Your task to perform on an android device: Search for "usb-a" on costco.com, select the first entry, add it to the cart, then select checkout. Image 0: 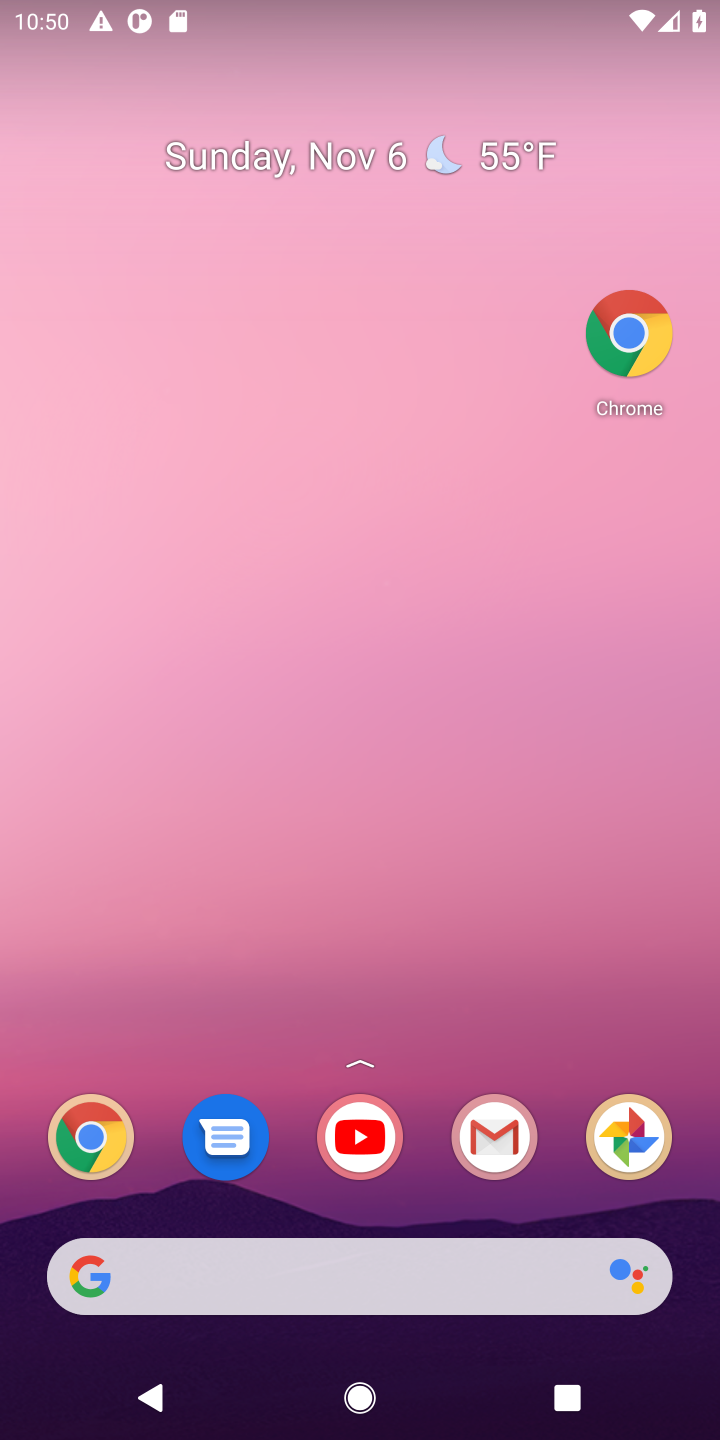
Step 0: drag from (427, 1127) to (346, 74)
Your task to perform on an android device: Search for "usb-a" on costco.com, select the first entry, add it to the cart, then select checkout. Image 1: 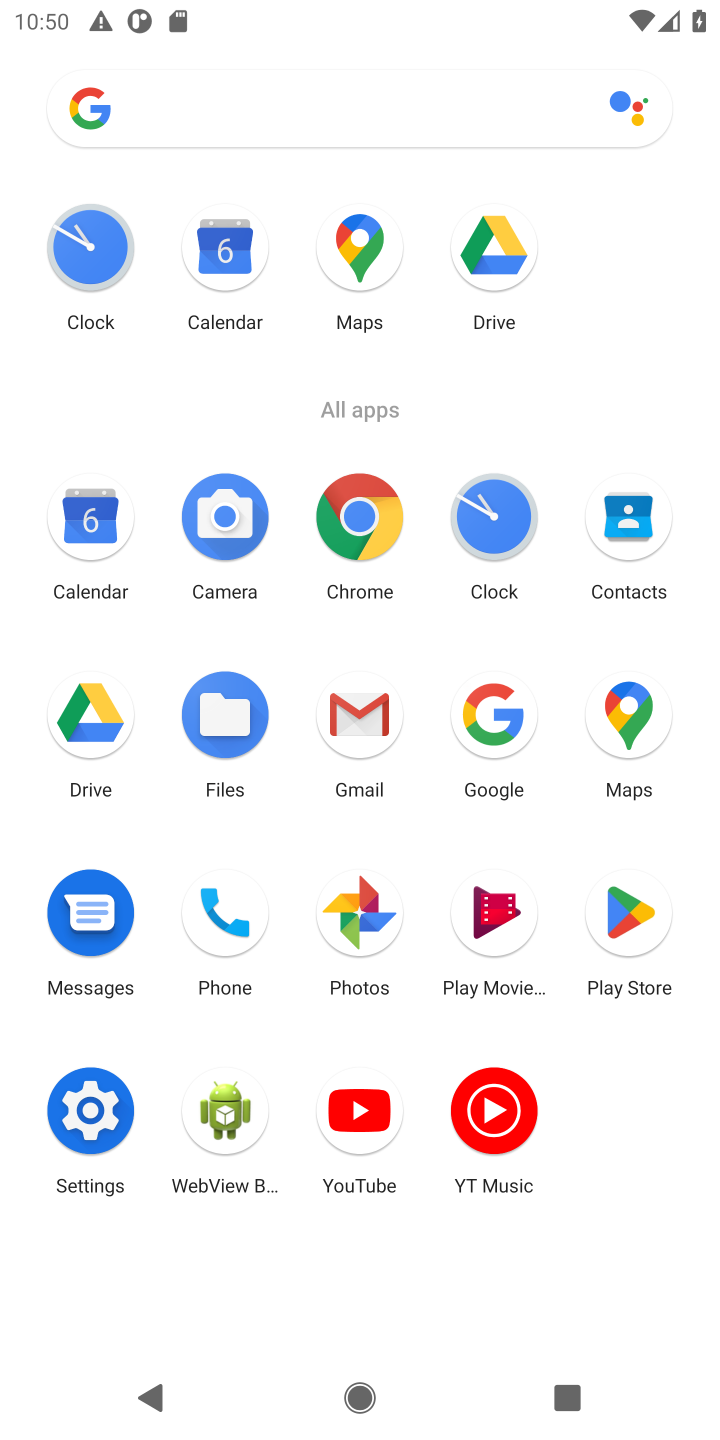
Step 1: click (360, 522)
Your task to perform on an android device: Search for "usb-a" on costco.com, select the first entry, add it to the cart, then select checkout. Image 2: 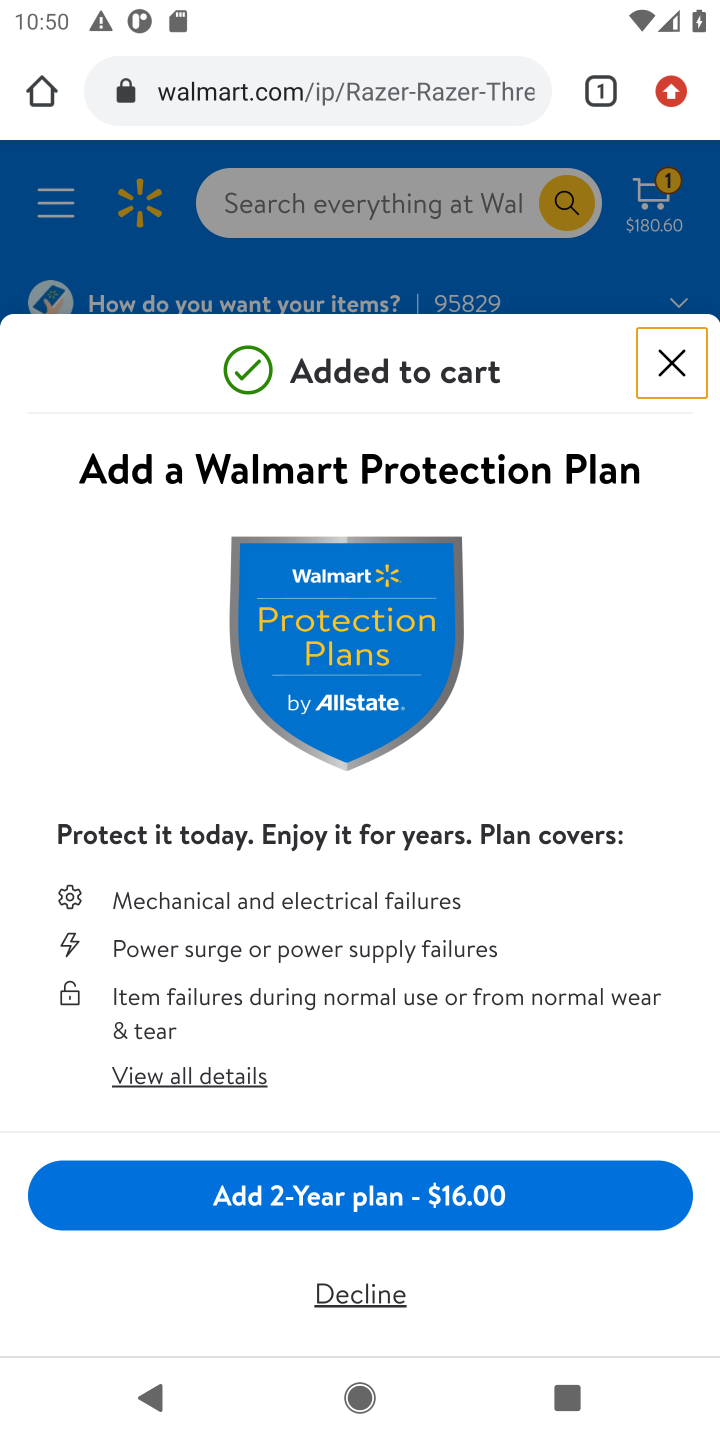
Step 2: click (365, 82)
Your task to perform on an android device: Search for "usb-a" on costco.com, select the first entry, add it to the cart, then select checkout. Image 3: 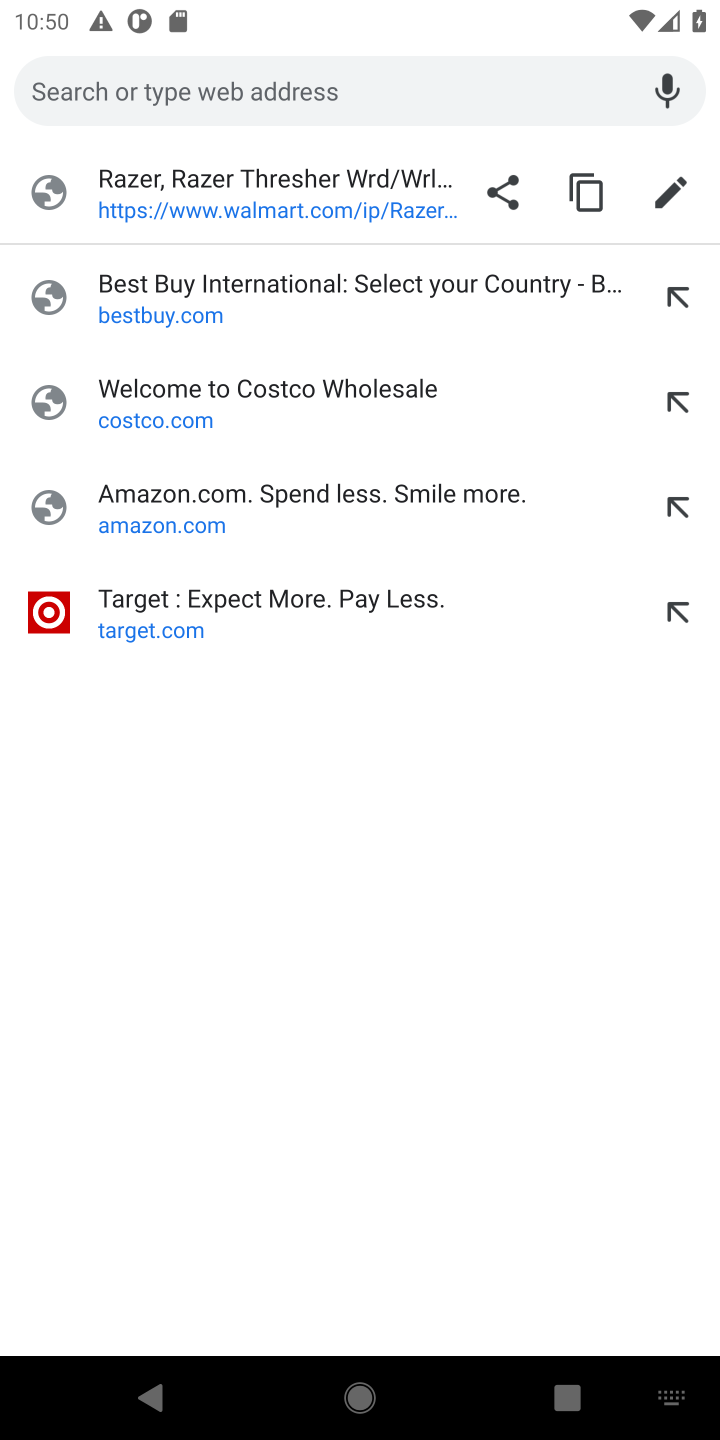
Step 3: type "costco.com"
Your task to perform on an android device: Search for "usb-a" on costco.com, select the first entry, add it to the cart, then select checkout. Image 4: 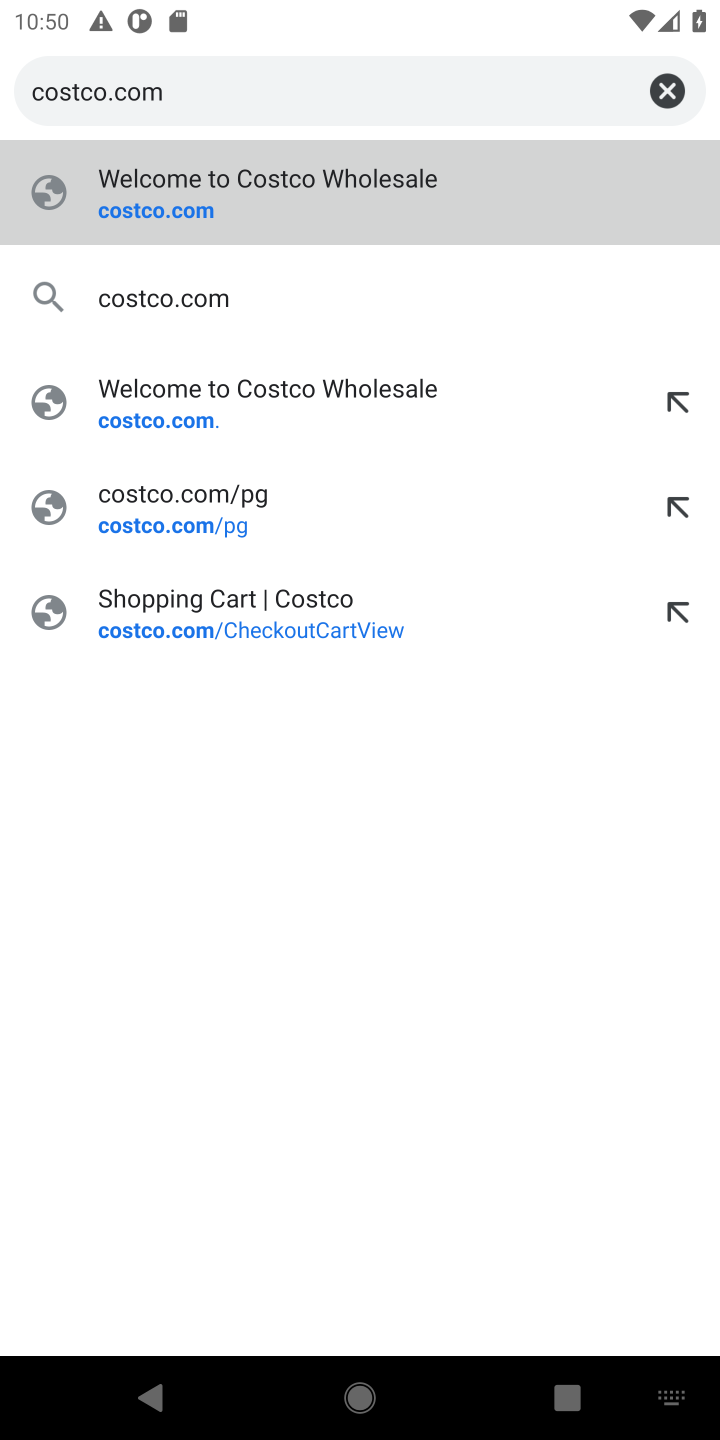
Step 4: press enter
Your task to perform on an android device: Search for "usb-a" on costco.com, select the first entry, add it to the cart, then select checkout. Image 5: 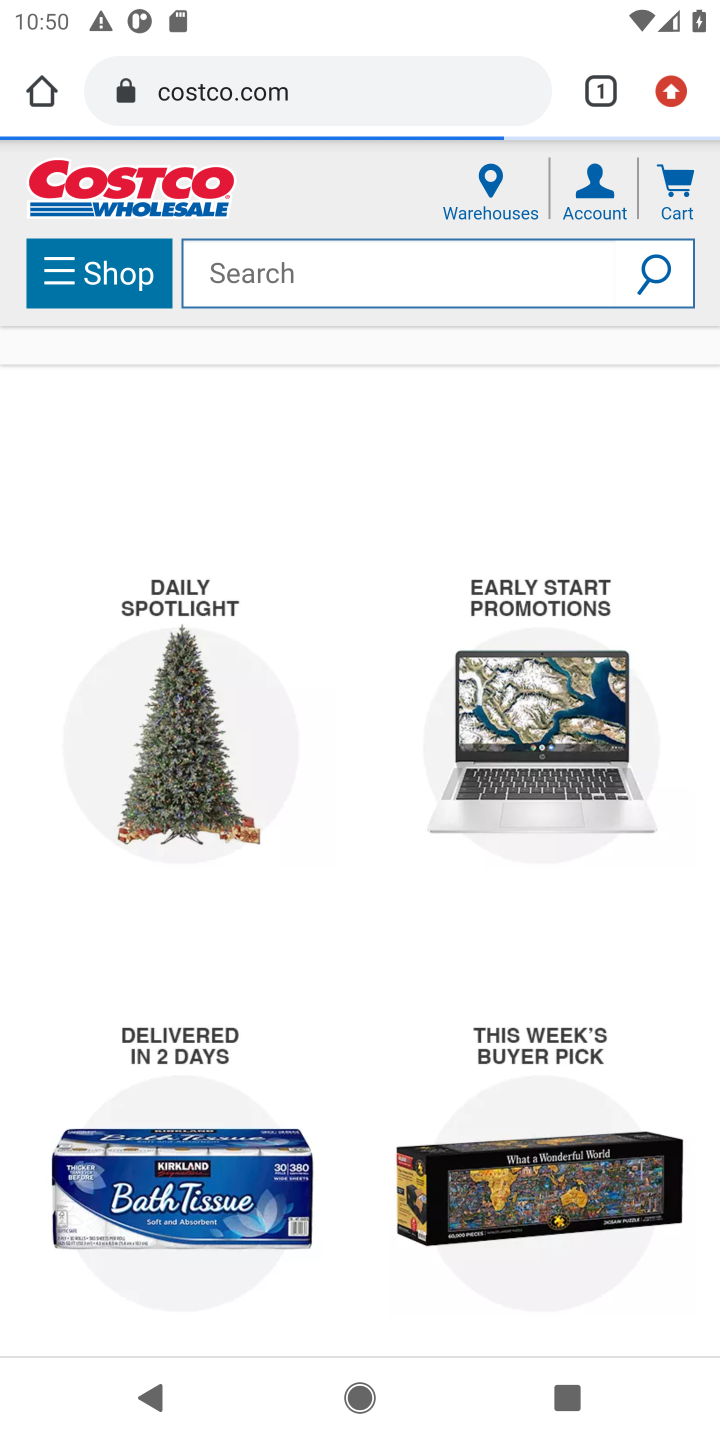
Step 5: click (368, 254)
Your task to perform on an android device: Search for "usb-a" on costco.com, select the first entry, add it to the cart, then select checkout. Image 6: 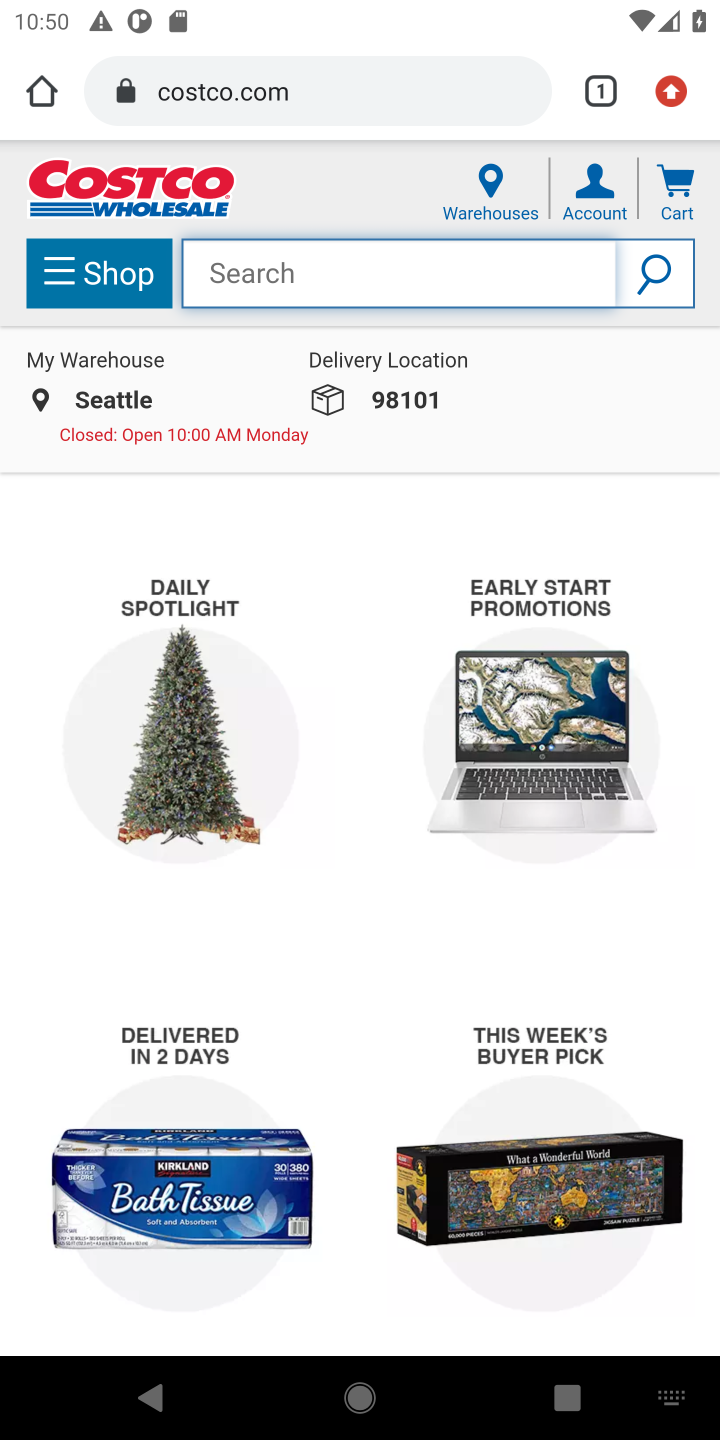
Step 6: type "usb-a"
Your task to perform on an android device: Search for "usb-a" on costco.com, select the first entry, add it to the cart, then select checkout. Image 7: 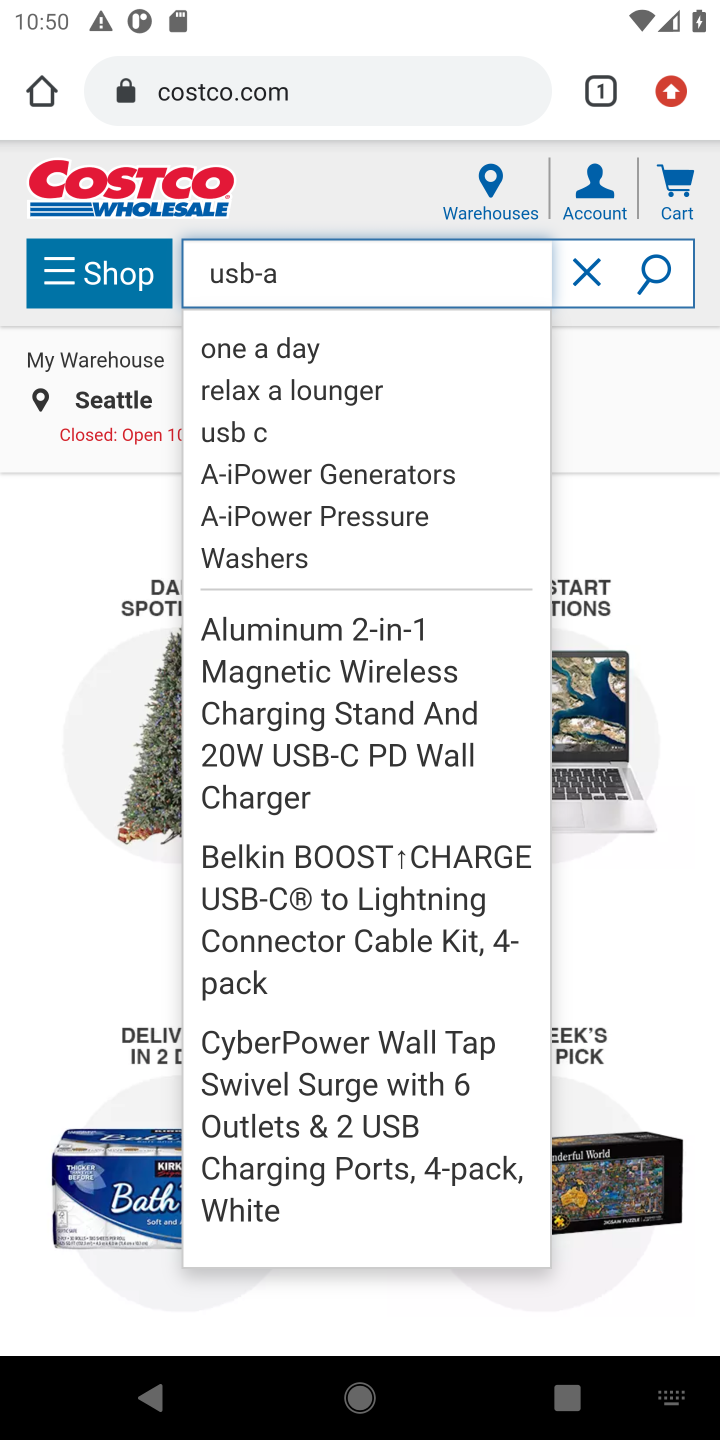
Step 7: press enter
Your task to perform on an android device: Search for "usb-a" on costco.com, select the first entry, add it to the cart, then select checkout. Image 8: 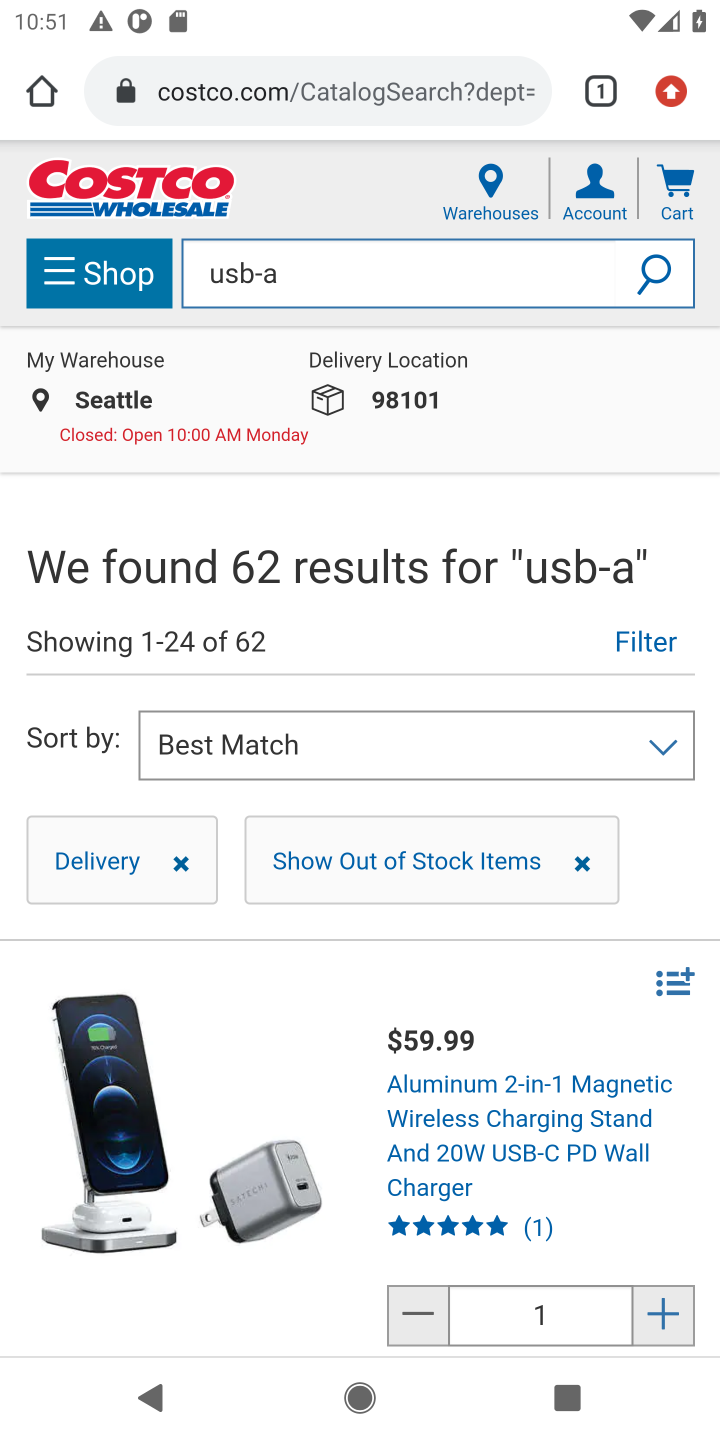
Step 8: drag from (507, 1208) to (513, 761)
Your task to perform on an android device: Search for "usb-a" on costco.com, select the first entry, add it to the cart, then select checkout. Image 9: 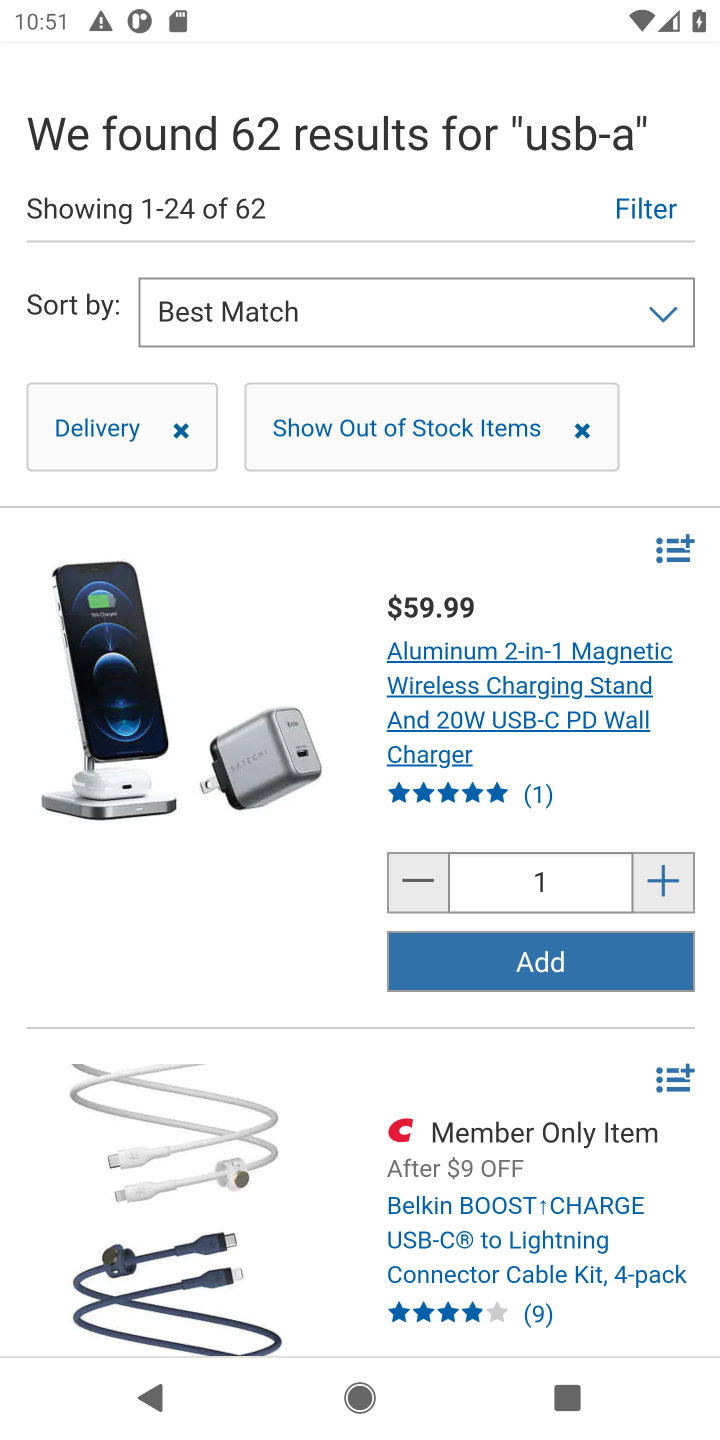
Step 9: click (569, 679)
Your task to perform on an android device: Search for "usb-a" on costco.com, select the first entry, add it to the cart, then select checkout. Image 10: 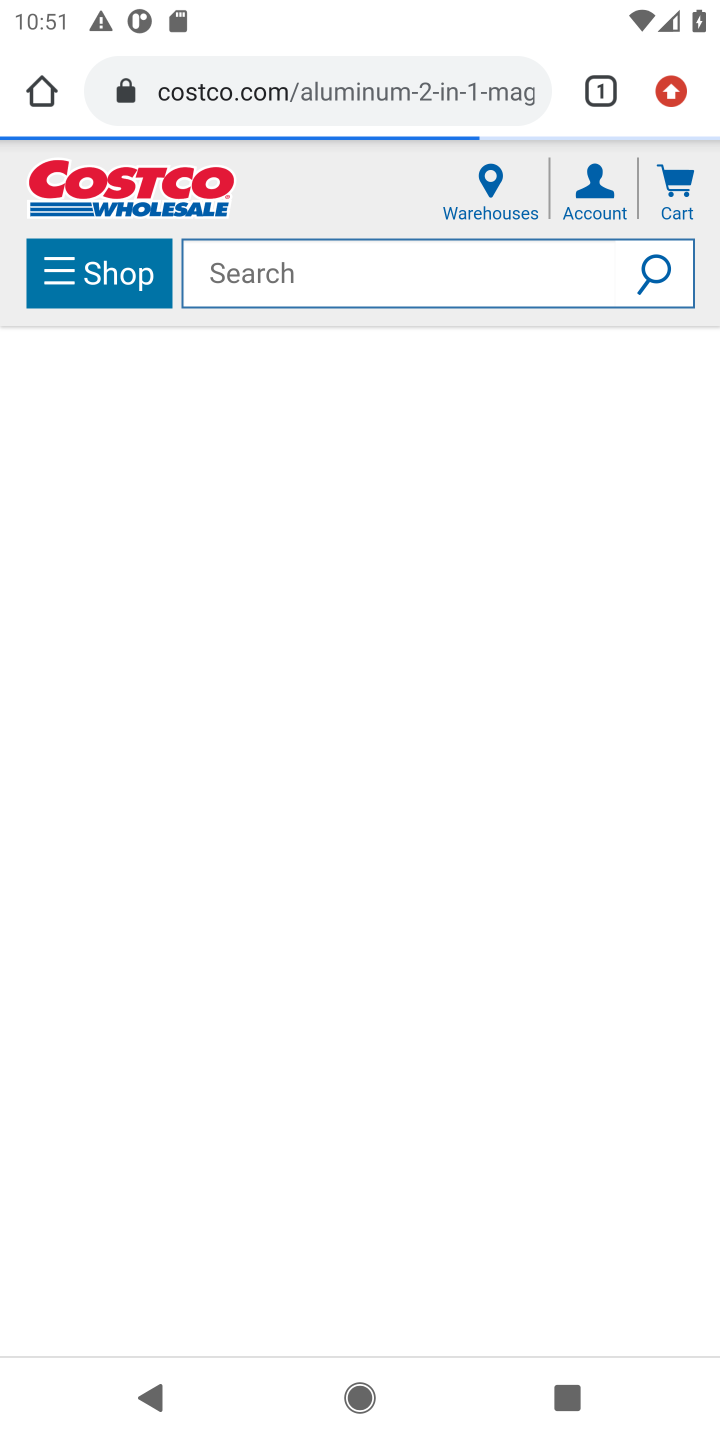
Step 10: click (526, 682)
Your task to perform on an android device: Search for "usb-a" on costco.com, select the first entry, add it to the cart, then select checkout. Image 11: 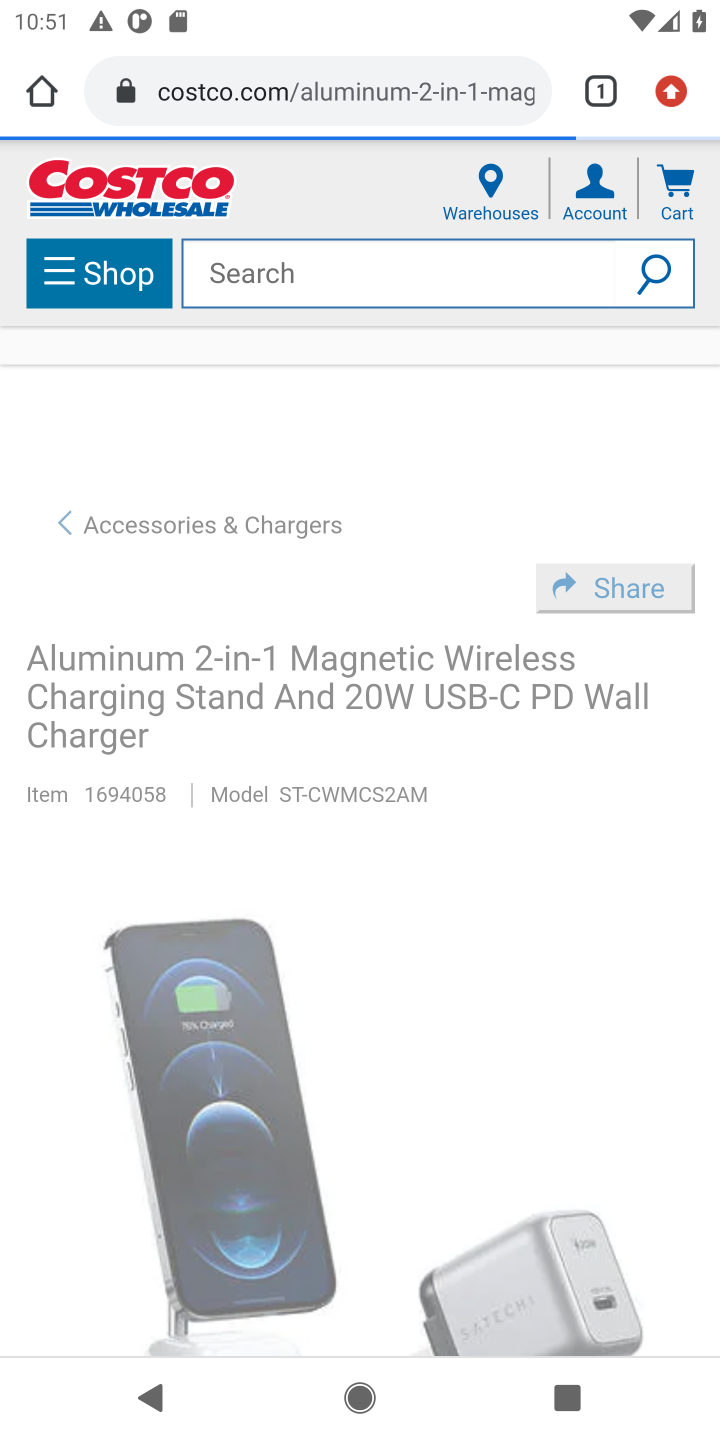
Step 11: drag from (577, 967) to (478, 141)
Your task to perform on an android device: Search for "usb-a" on costco.com, select the first entry, add it to the cart, then select checkout. Image 12: 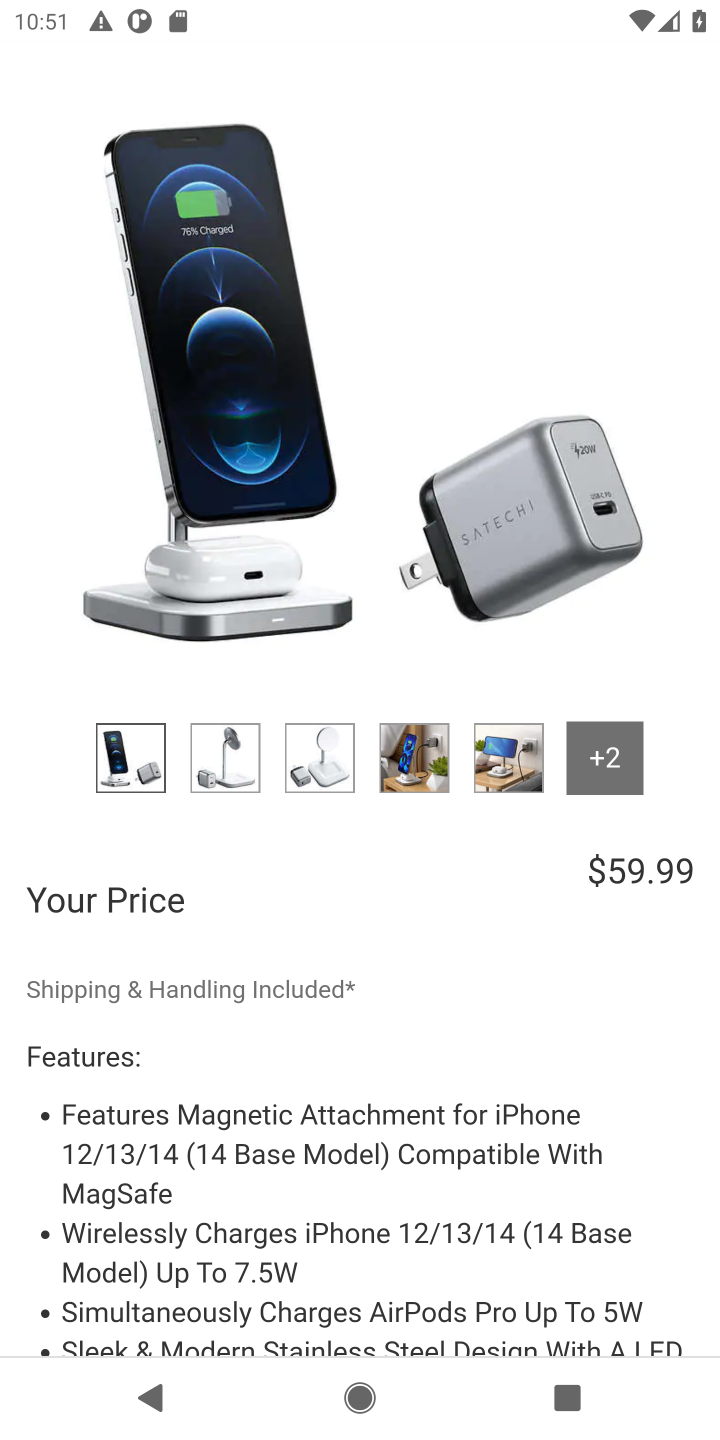
Step 12: drag from (360, 1001) to (358, 102)
Your task to perform on an android device: Search for "usb-a" on costco.com, select the first entry, add it to the cart, then select checkout. Image 13: 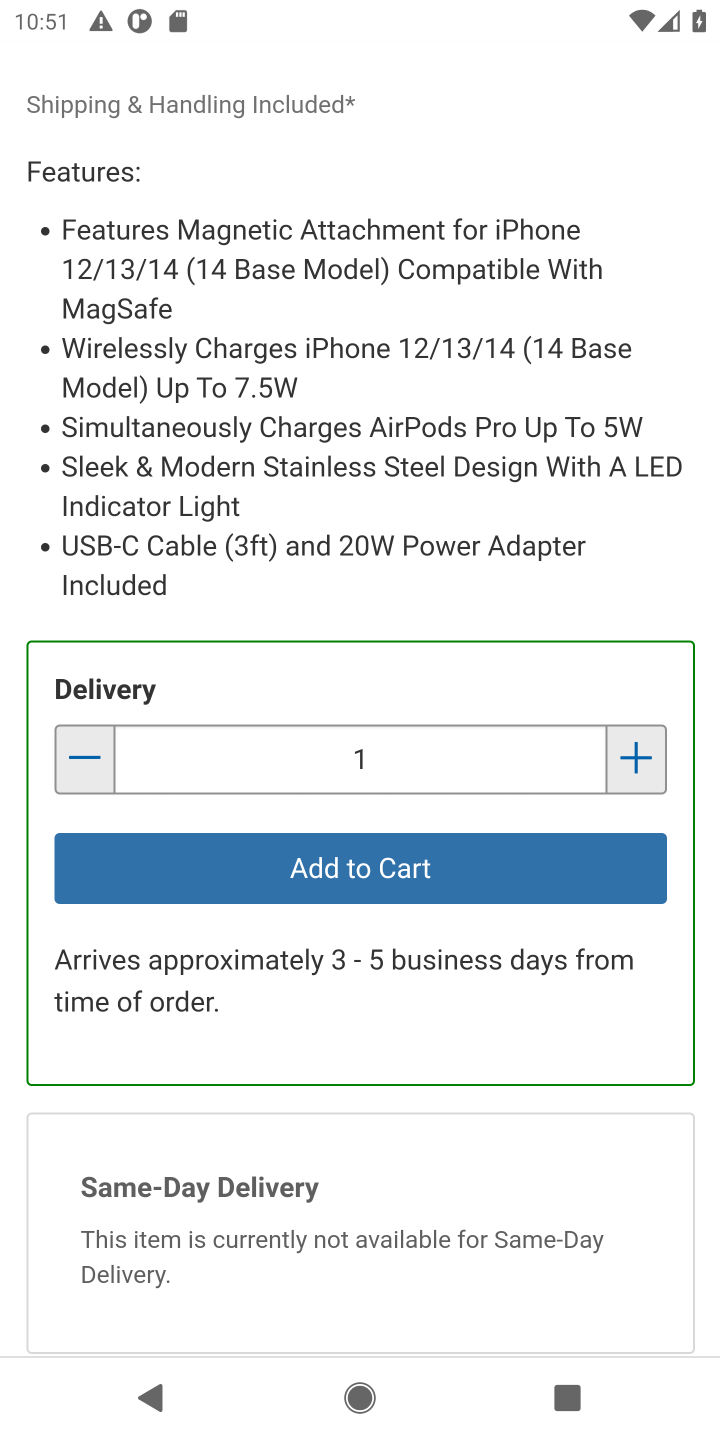
Step 13: click (425, 882)
Your task to perform on an android device: Search for "usb-a" on costco.com, select the first entry, add it to the cart, then select checkout. Image 14: 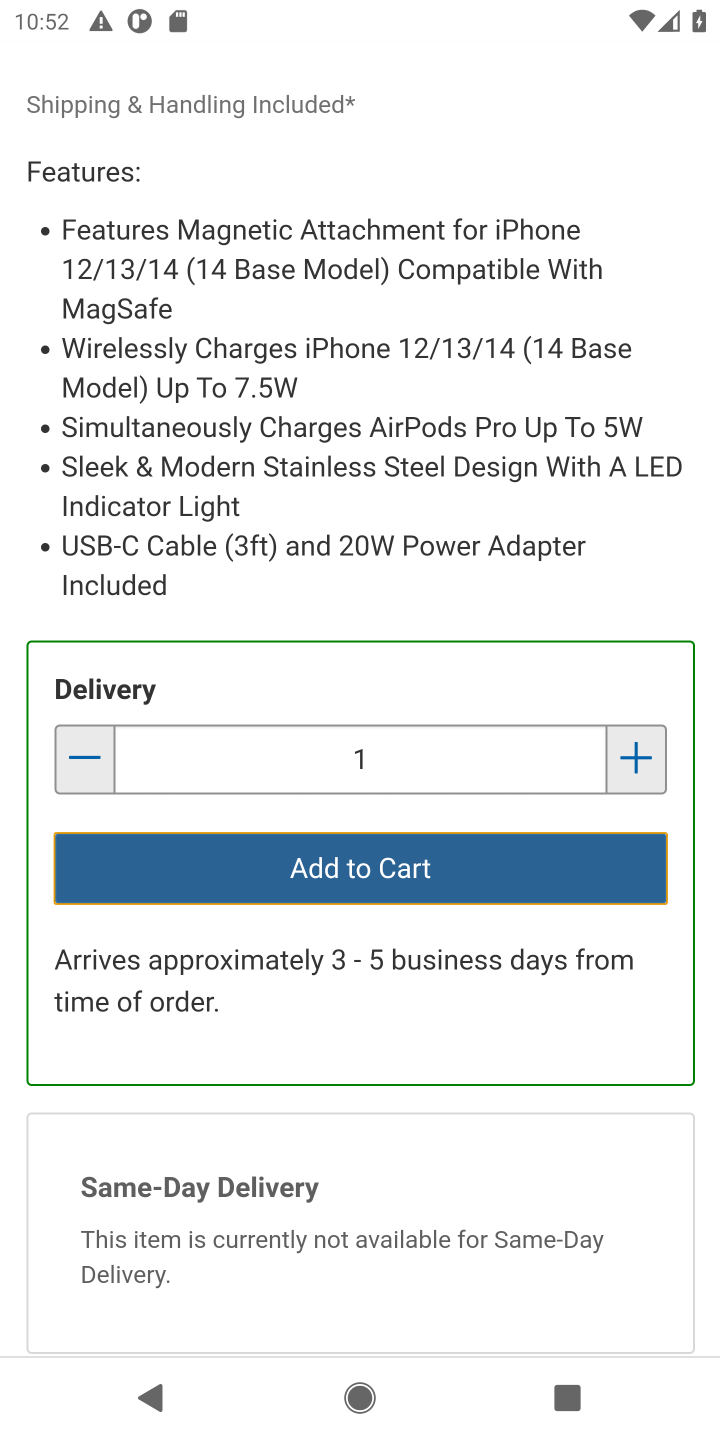
Step 14: click (425, 882)
Your task to perform on an android device: Search for "usb-a" on costco.com, select the first entry, add it to the cart, then select checkout. Image 15: 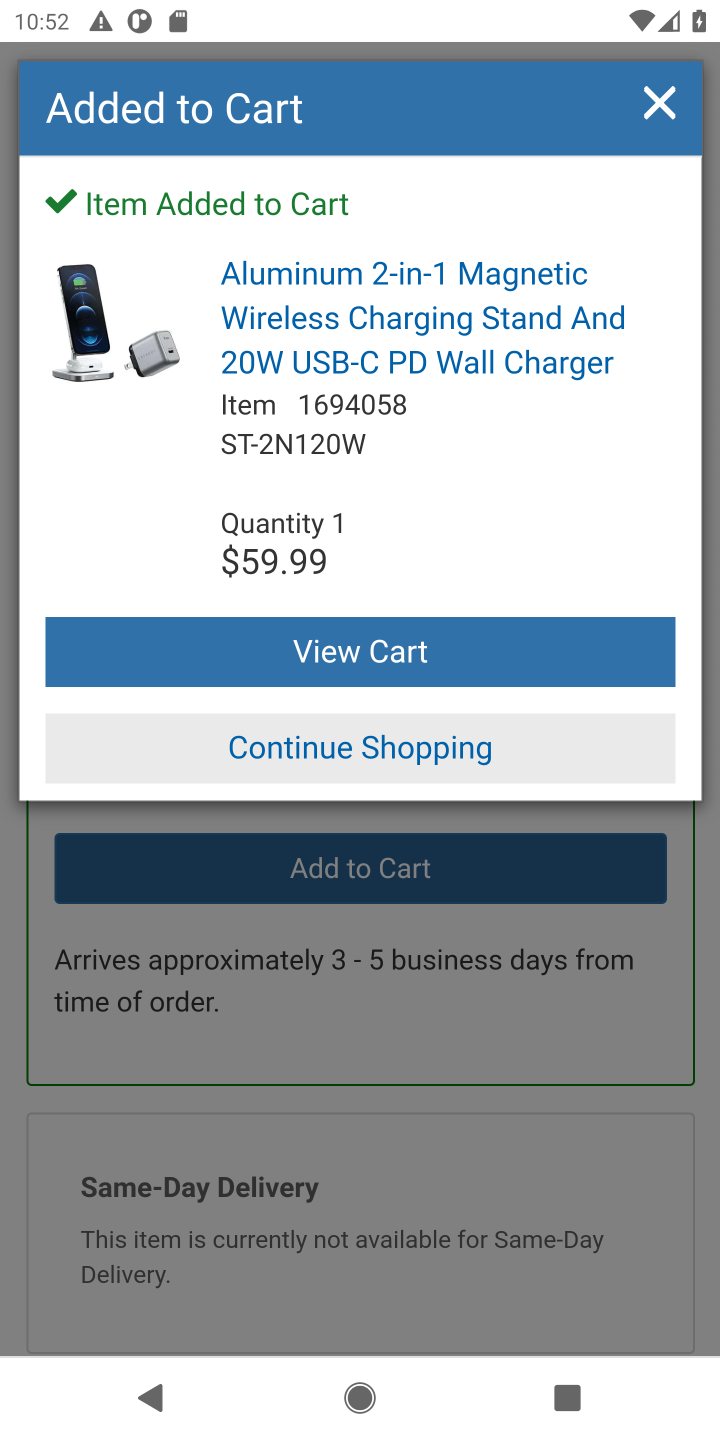
Step 15: click (410, 639)
Your task to perform on an android device: Search for "usb-a" on costco.com, select the first entry, add it to the cart, then select checkout. Image 16: 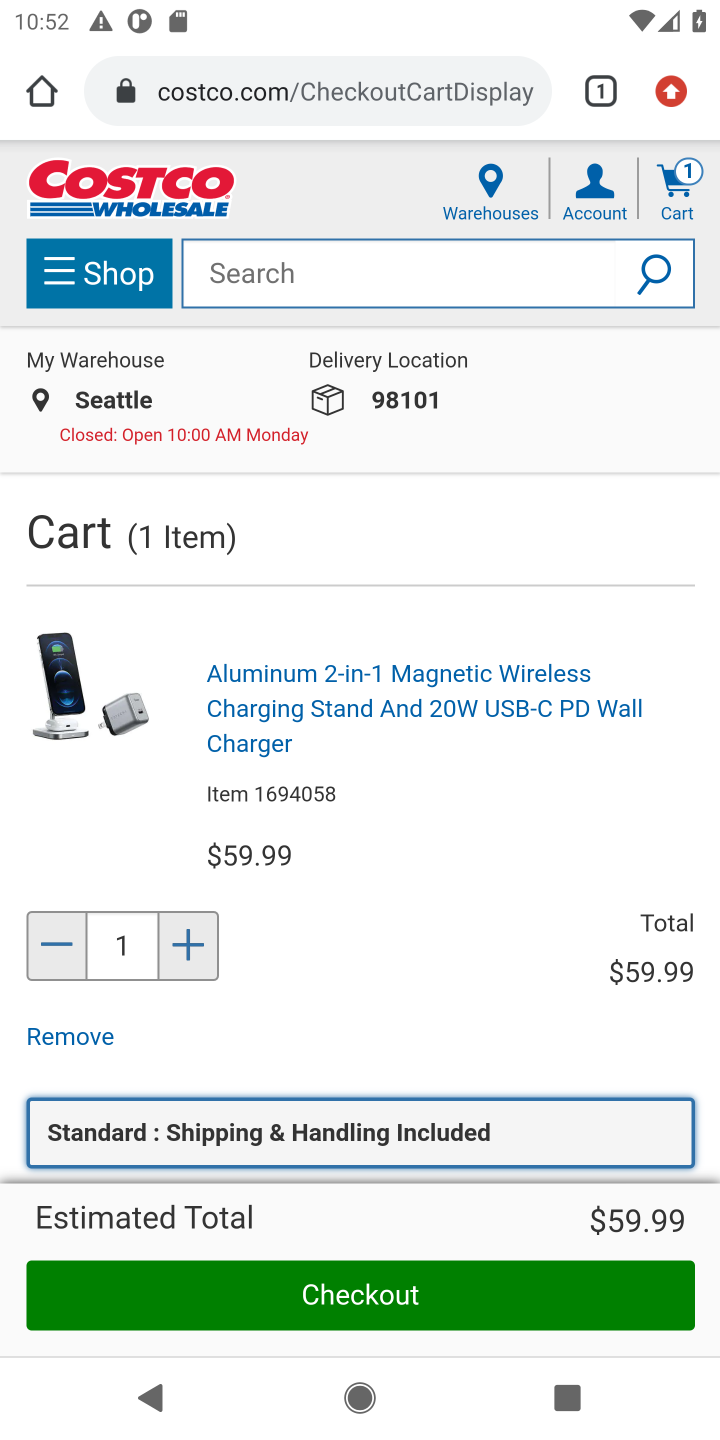
Step 16: click (602, 1305)
Your task to perform on an android device: Search for "usb-a" on costco.com, select the first entry, add it to the cart, then select checkout. Image 17: 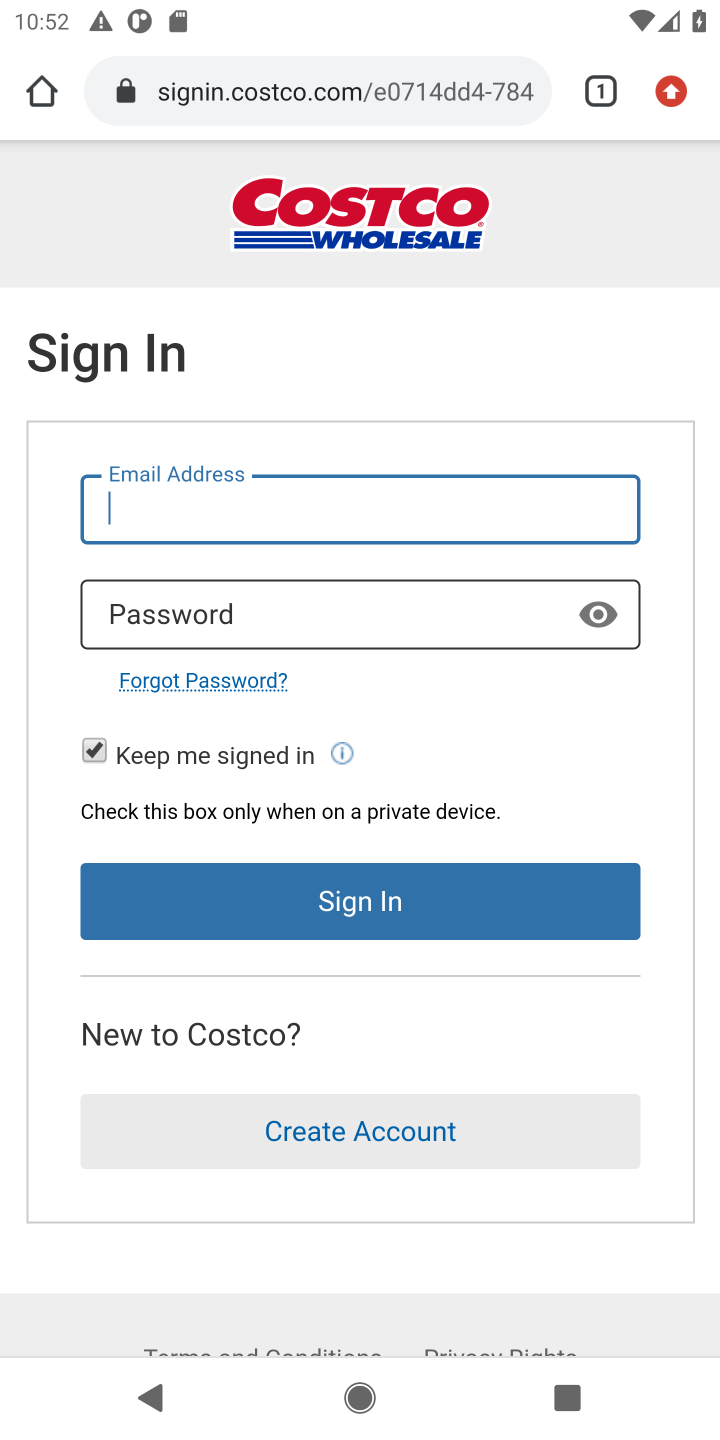
Step 17: task complete